Your task to perform on an android device: Open sound settings Image 0: 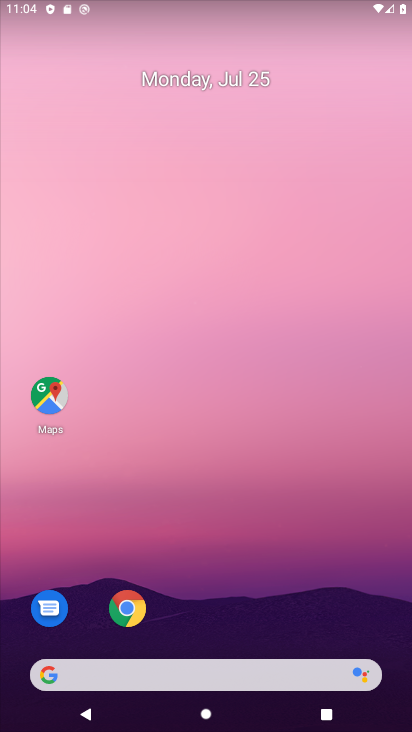
Step 0: drag from (217, 686) to (171, 78)
Your task to perform on an android device: Open sound settings Image 1: 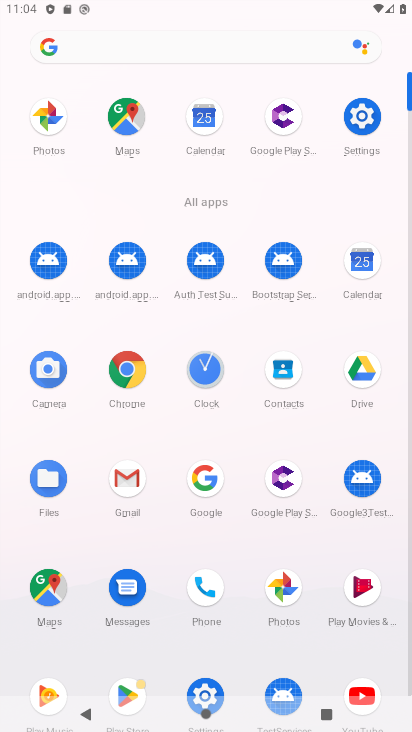
Step 1: click (218, 681)
Your task to perform on an android device: Open sound settings Image 2: 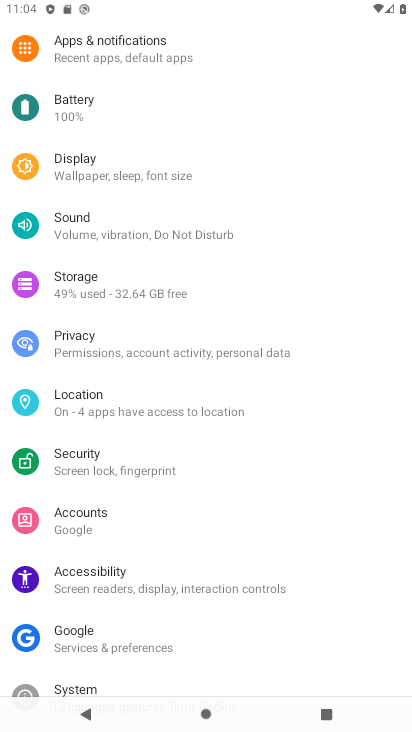
Step 2: click (107, 230)
Your task to perform on an android device: Open sound settings Image 3: 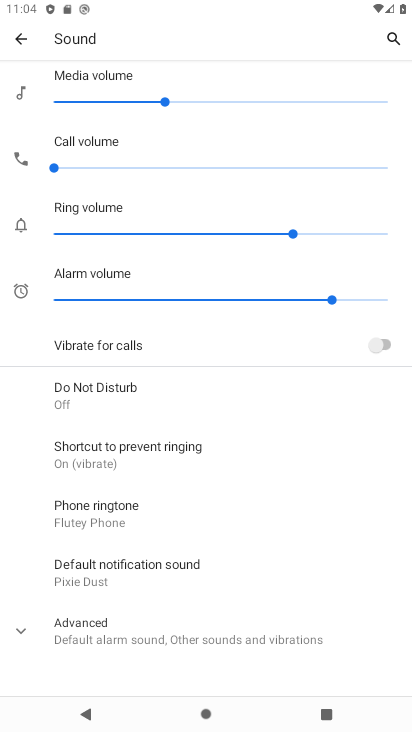
Step 3: task complete